Your task to perform on an android device: Open calendar and show me the third week of next month Image 0: 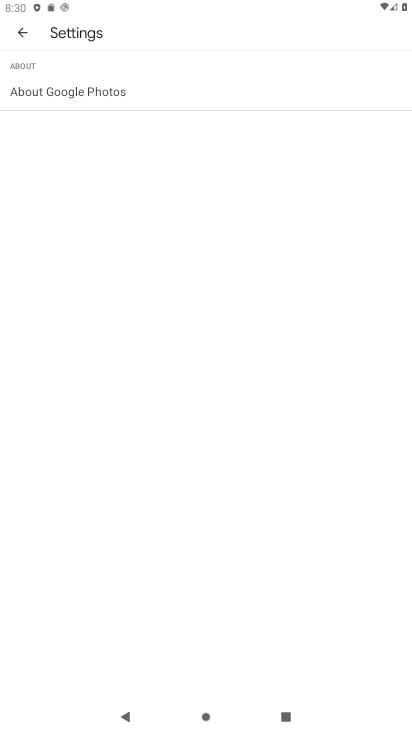
Step 0: press home button
Your task to perform on an android device: Open calendar and show me the third week of next month Image 1: 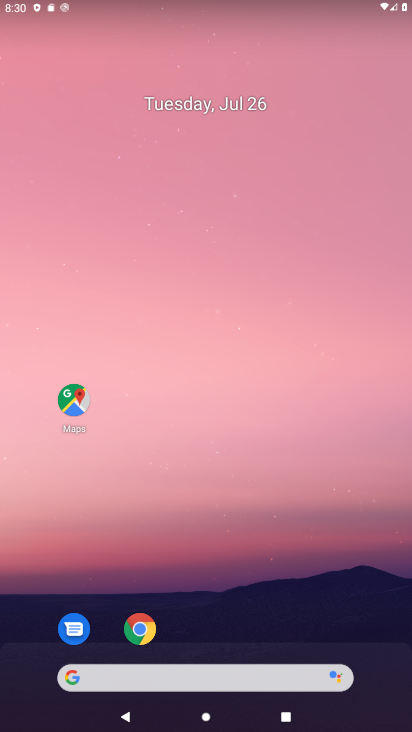
Step 1: drag from (331, 612) to (272, 135)
Your task to perform on an android device: Open calendar and show me the third week of next month Image 2: 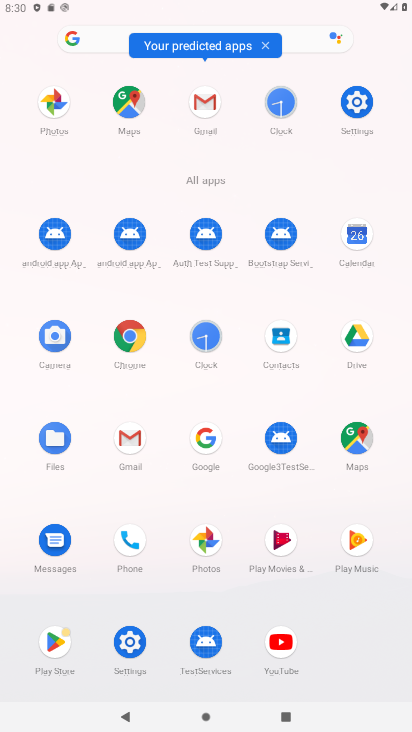
Step 2: click (354, 232)
Your task to perform on an android device: Open calendar and show me the third week of next month Image 3: 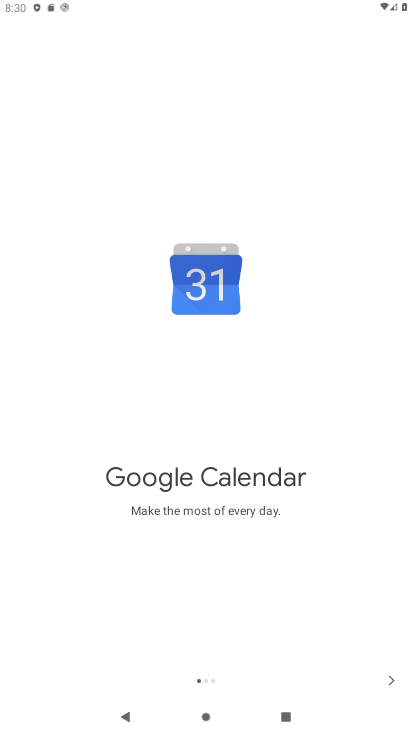
Step 3: click (389, 675)
Your task to perform on an android device: Open calendar and show me the third week of next month Image 4: 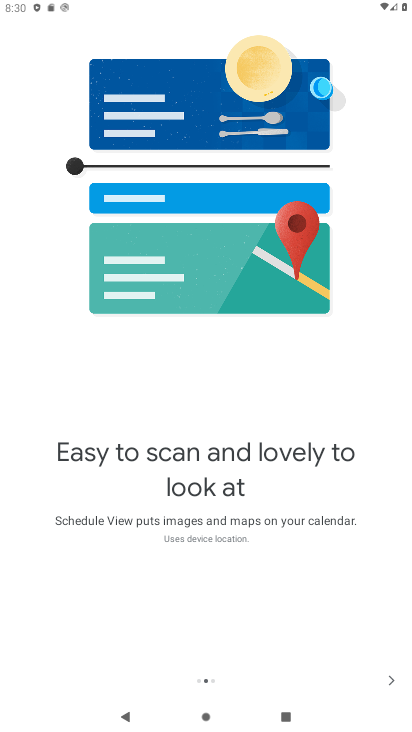
Step 4: click (389, 675)
Your task to perform on an android device: Open calendar and show me the third week of next month Image 5: 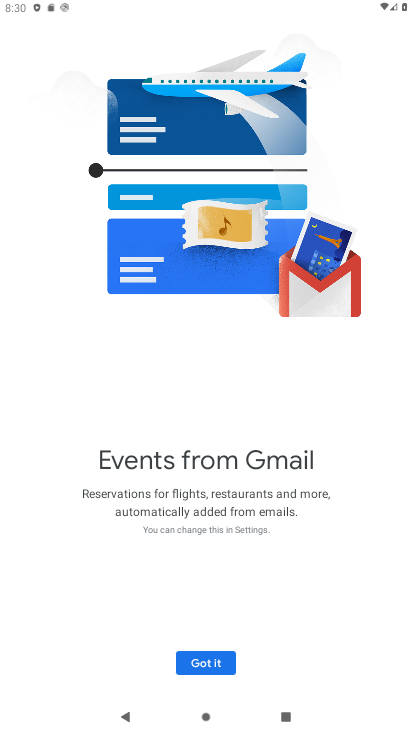
Step 5: click (200, 673)
Your task to perform on an android device: Open calendar and show me the third week of next month Image 6: 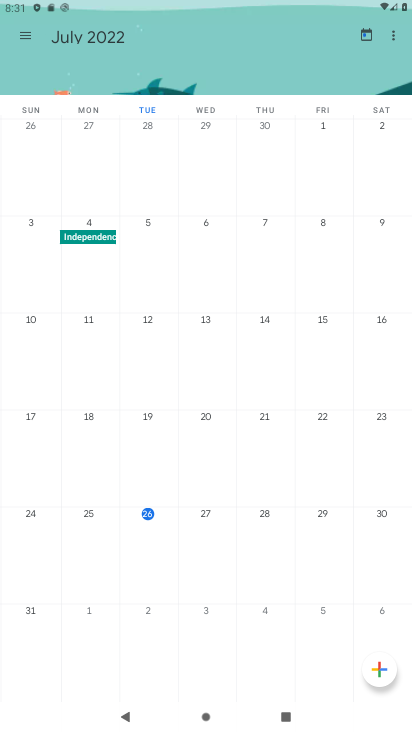
Step 6: click (17, 42)
Your task to perform on an android device: Open calendar and show me the third week of next month Image 7: 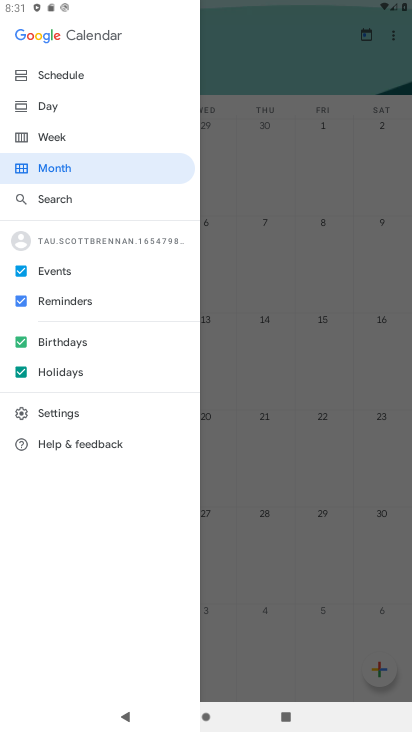
Step 7: click (63, 137)
Your task to perform on an android device: Open calendar and show me the third week of next month Image 8: 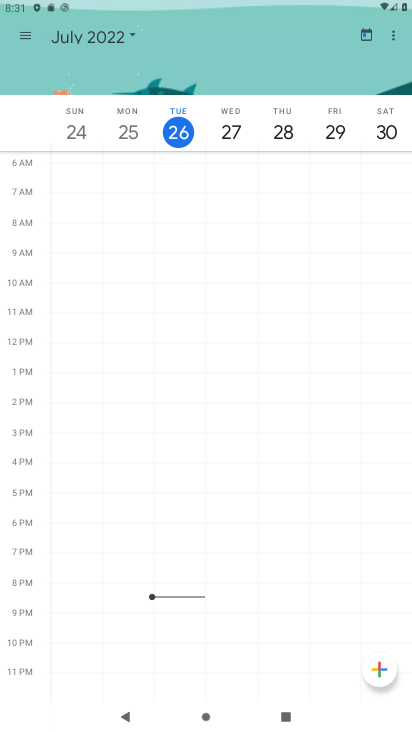
Step 8: task complete